Your task to perform on an android device: Go to wifi settings Image 0: 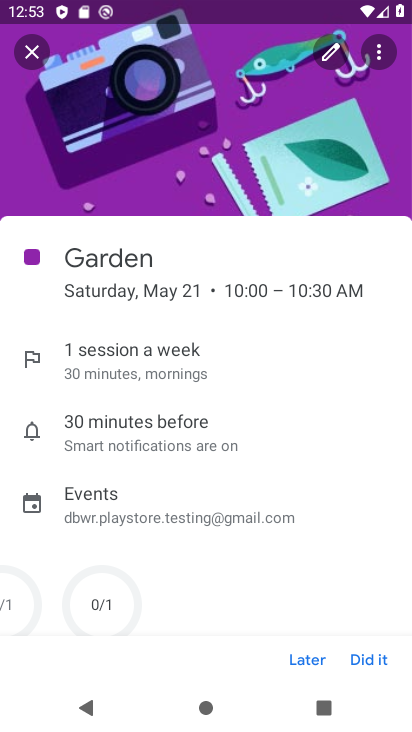
Step 0: press home button
Your task to perform on an android device: Go to wifi settings Image 1: 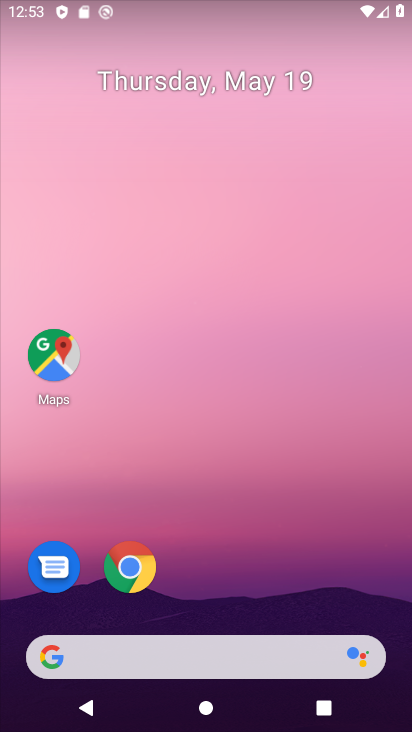
Step 1: drag from (164, 653) to (312, 97)
Your task to perform on an android device: Go to wifi settings Image 2: 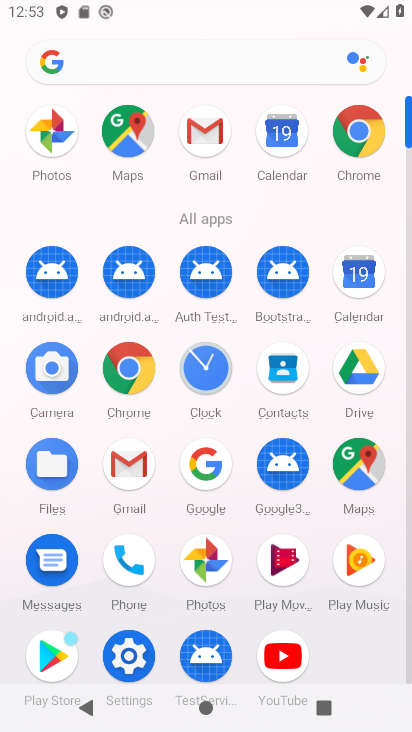
Step 2: click (137, 644)
Your task to perform on an android device: Go to wifi settings Image 3: 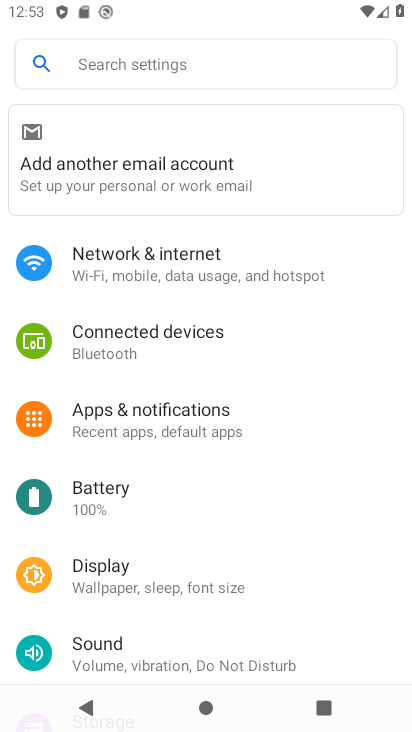
Step 3: click (191, 264)
Your task to perform on an android device: Go to wifi settings Image 4: 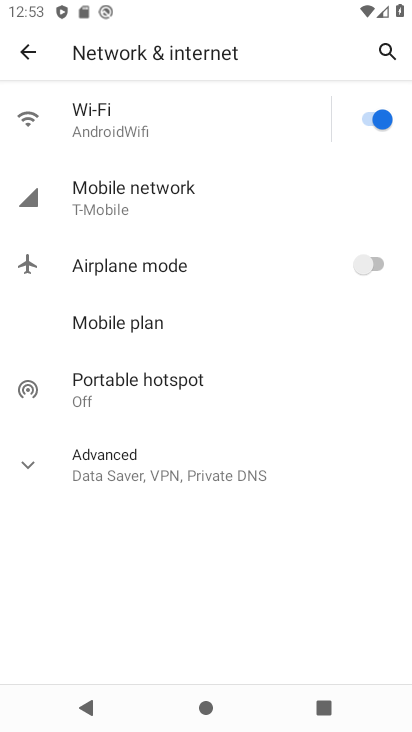
Step 4: click (119, 124)
Your task to perform on an android device: Go to wifi settings Image 5: 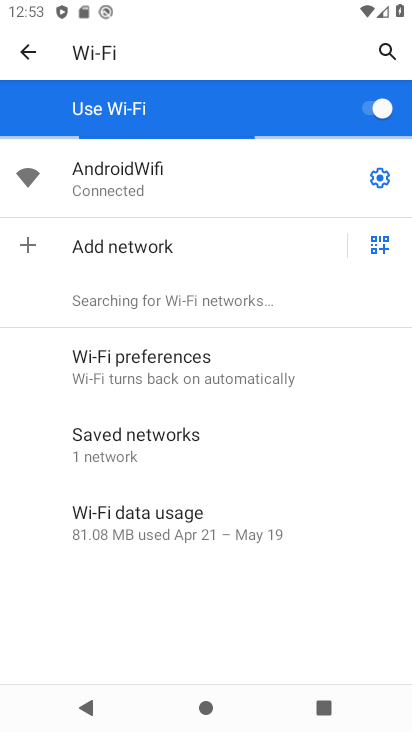
Step 5: task complete